Your task to perform on an android device: Open calendar and show me the second week of next month Image 0: 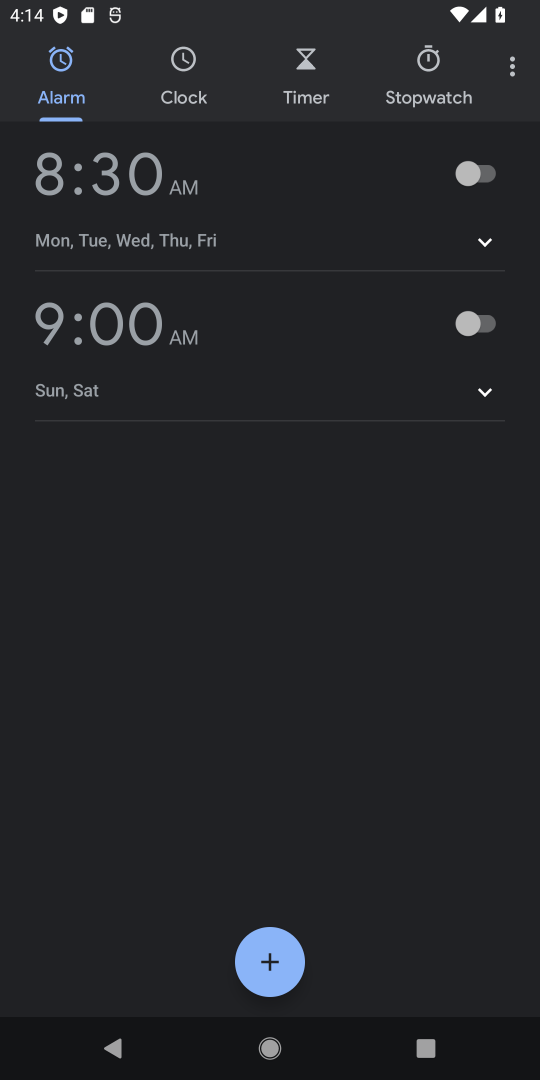
Step 0: press home button
Your task to perform on an android device: Open calendar and show me the second week of next month Image 1: 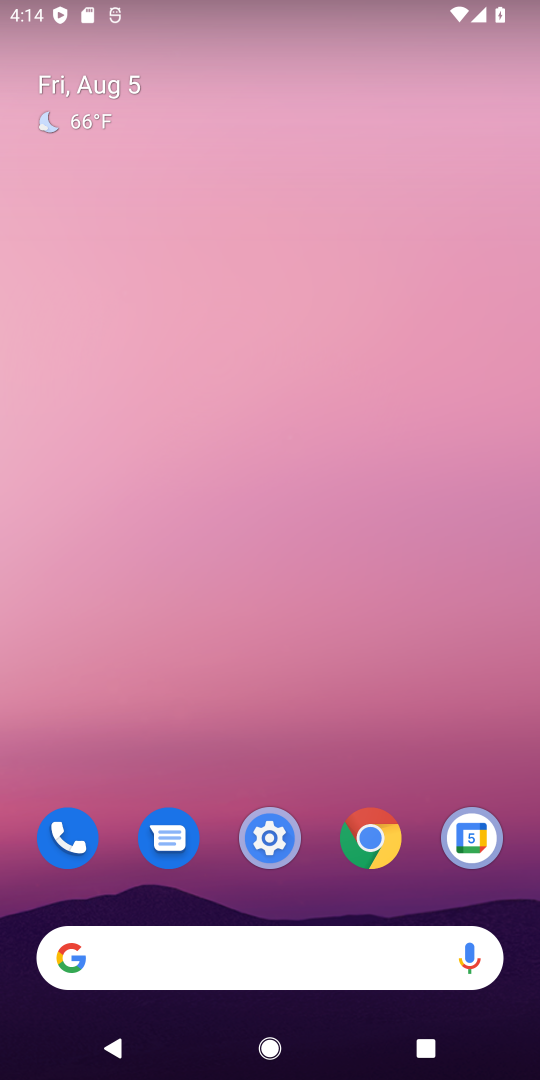
Step 1: drag from (270, 966) to (284, 249)
Your task to perform on an android device: Open calendar and show me the second week of next month Image 2: 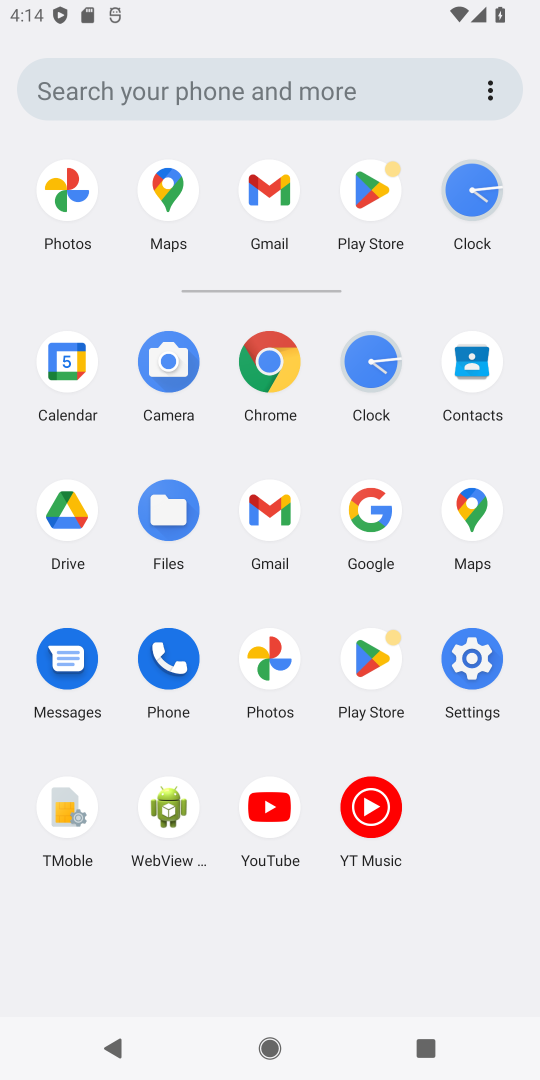
Step 2: click (76, 352)
Your task to perform on an android device: Open calendar and show me the second week of next month Image 3: 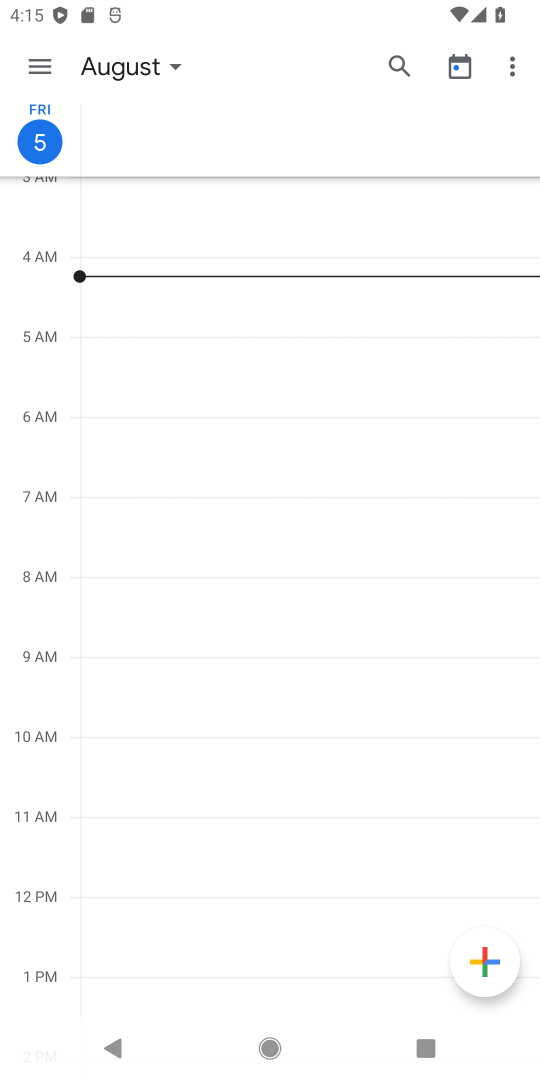
Step 3: click (34, 56)
Your task to perform on an android device: Open calendar and show me the second week of next month Image 4: 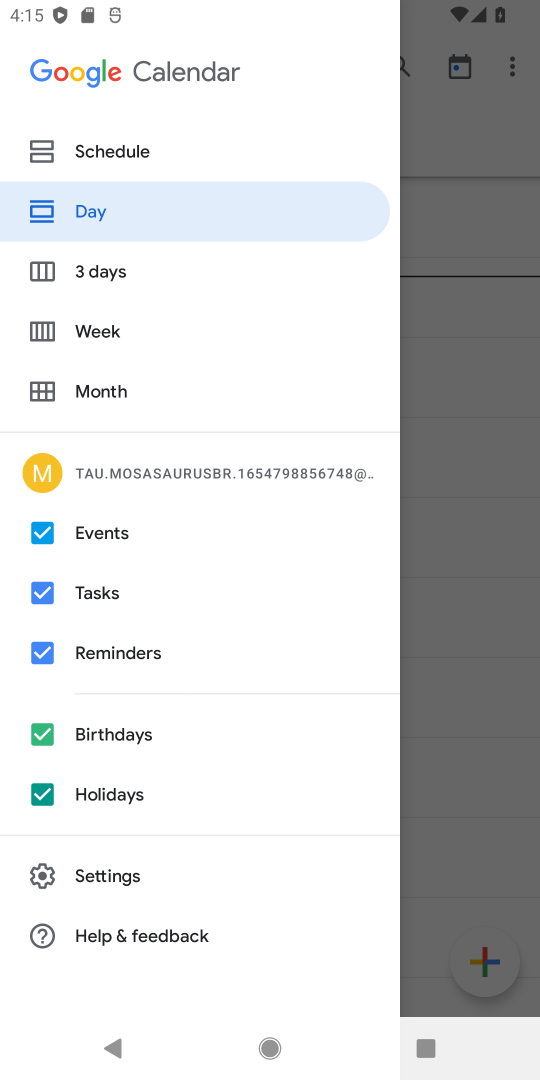
Step 4: click (129, 340)
Your task to perform on an android device: Open calendar and show me the second week of next month Image 5: 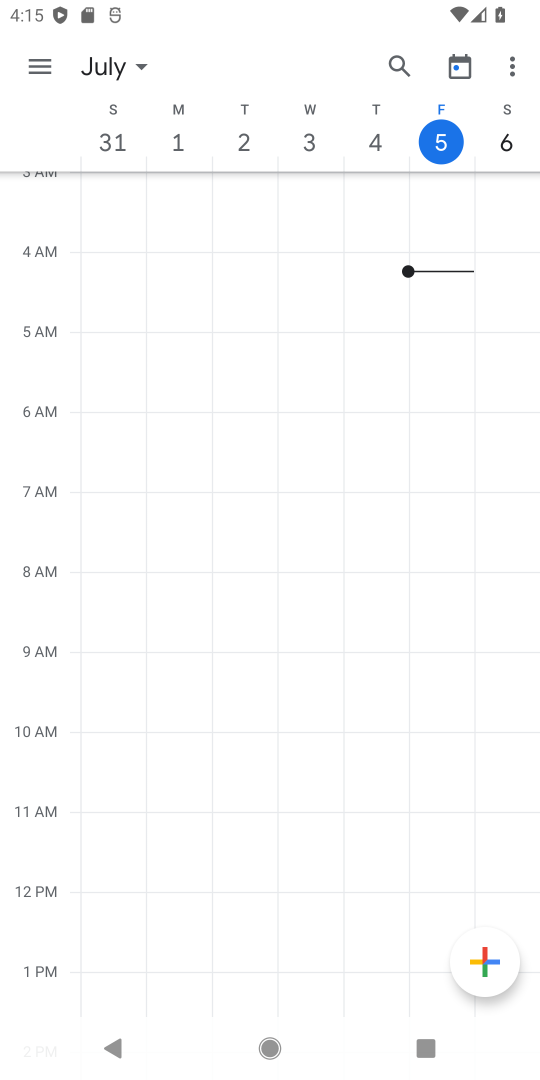
Step 5: task complete